Your task to perform on an android device: turn off data saver in the chrome app Image 0: 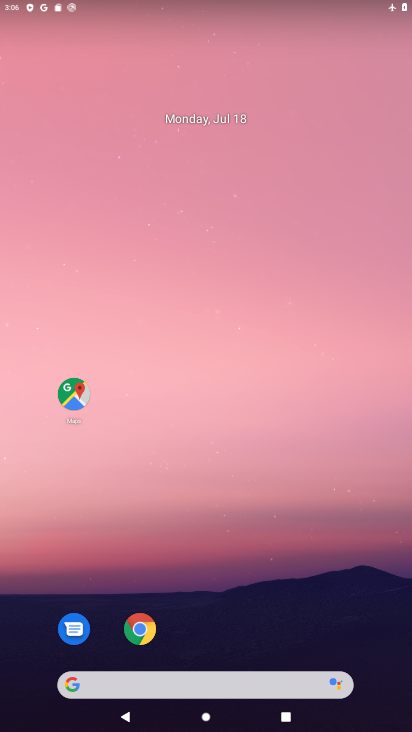
Step 0: drag from (197, 652) to (187, 56)
Your task to perform on an android device: turn off data saver in the chrome app Image 1: 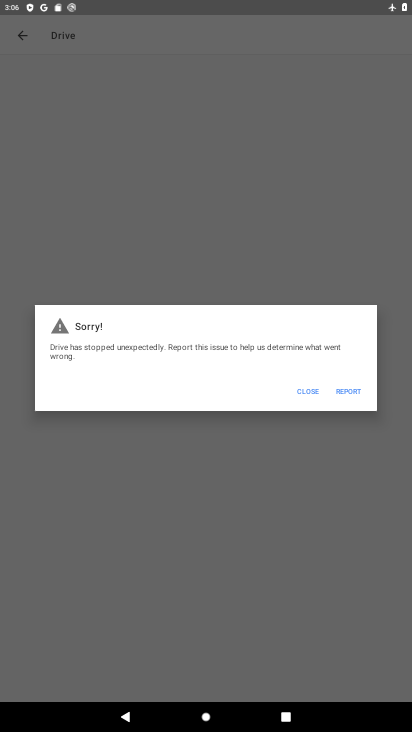
Step 1: press home button
Your task to perform on an android device: turn off data saver in the chrome app Image 2: 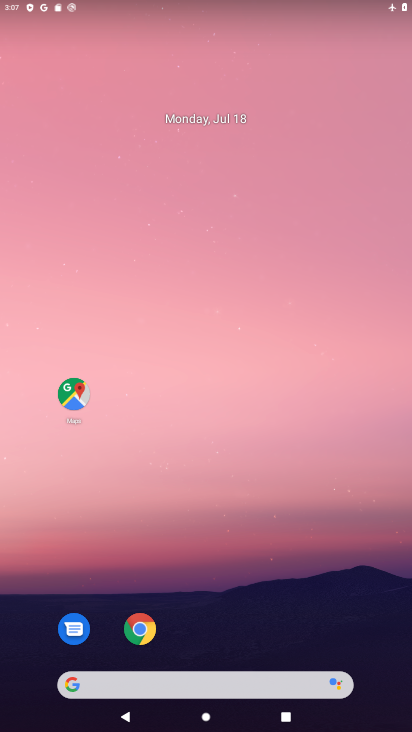
Step 2: drag from (222, 658) to (212, 38)
Your task to perform on an android device: turn off data saver in the chrome app Image 3: 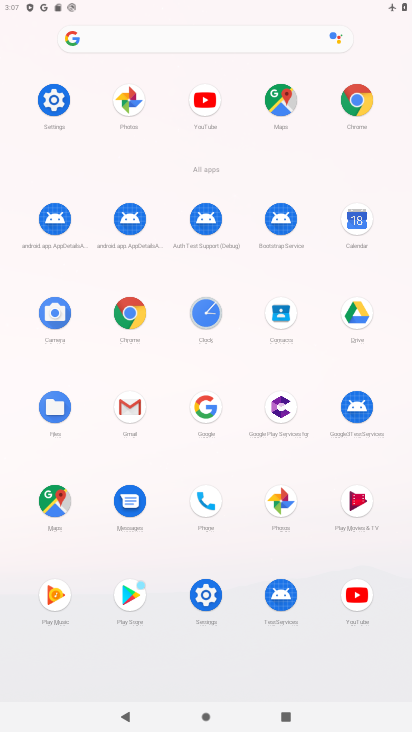
Step 3: click (129, 314)
Your task to perform on an android device: turn off data saver in the chrome app Image 4: 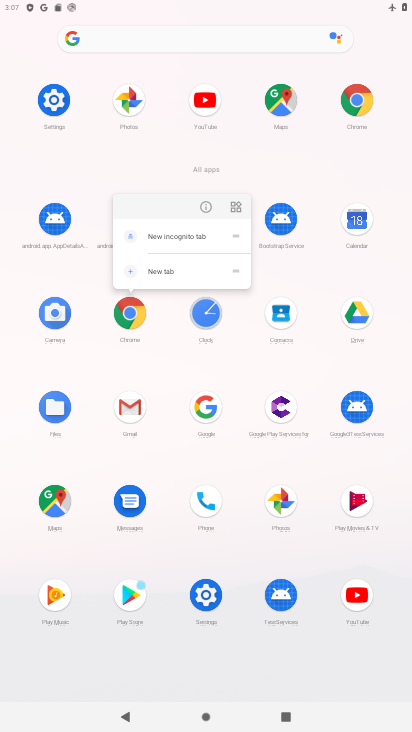
Step 4: click (131, 314)
Your task to perform on an android device: turn off data saver in the chrome app Image 5: 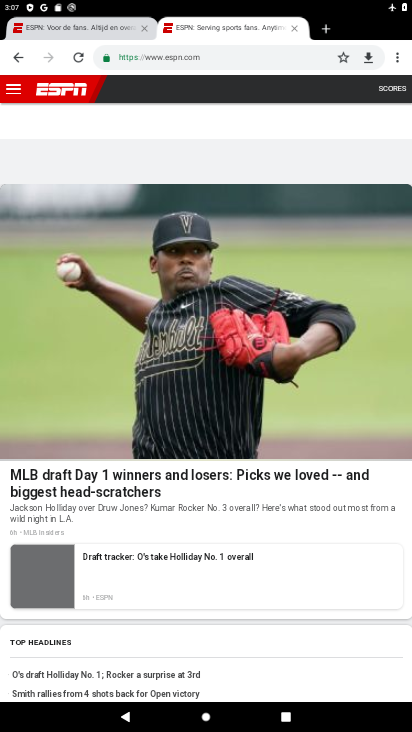
Step 5: click (398, 57)
Your task to perform on an android device: turn off data saver in the chrome app Image 6: 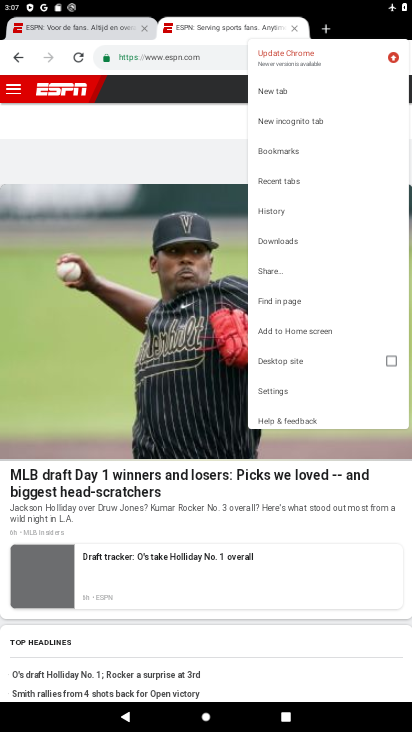
Step 6: click (285, 393)
Your task to perform on an android device: turn off data saver in the chrome app Image 7: 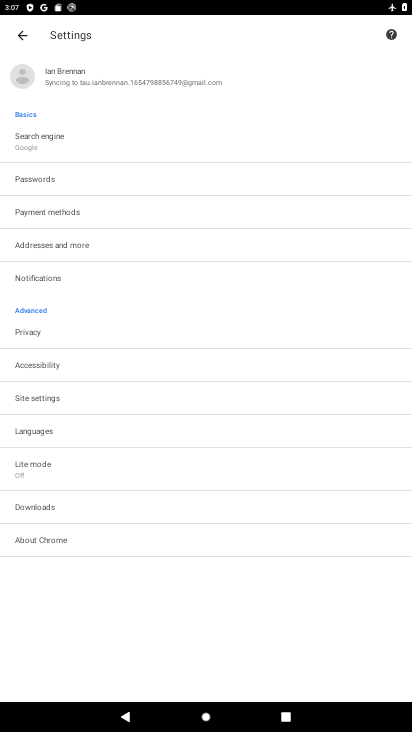
Step 7: click (35, 467)
Your task to perform on an android device: turn off data saver in the chrome app Image 8: 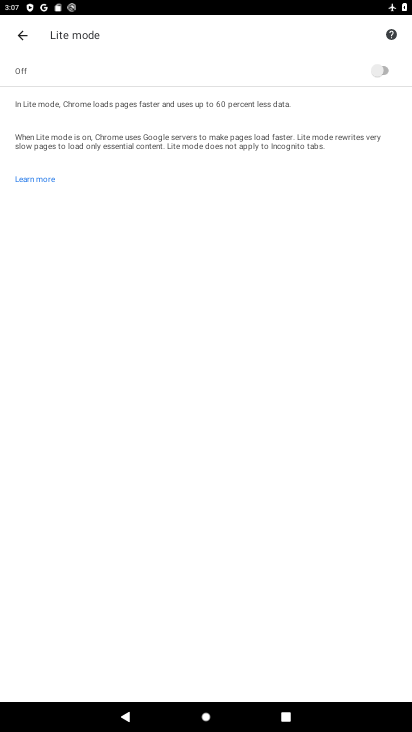
Step 8: task complete